Your task to perform on an android device: check google app version Image 0: 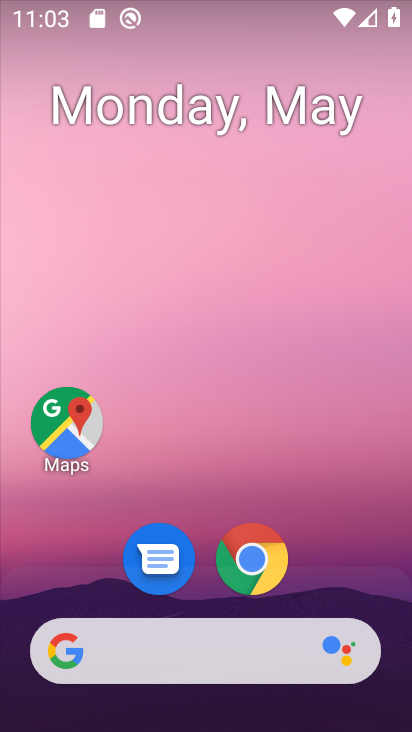
Step 0: drag from (384, 629) to (267, 16)
Your task to perform on an android device: check google app version Image 1: 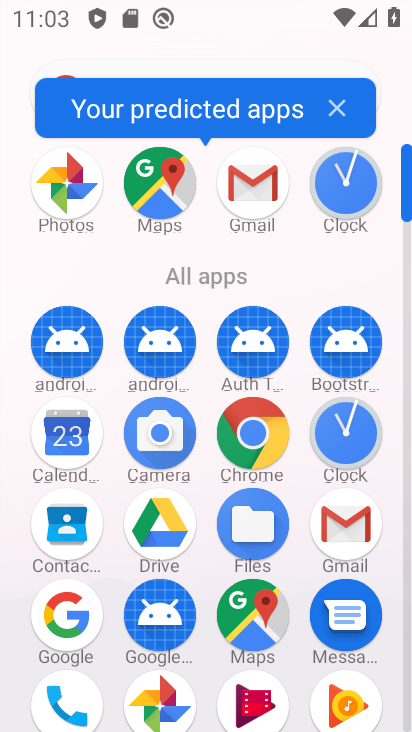
Step 1: click (84, 612)
Your task to perform on an android device: check google app version Image 2: 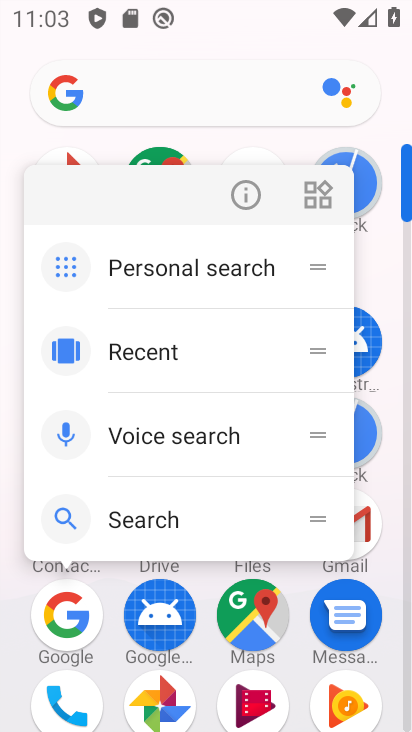
Step 2: click (245, 185)
Your task to perform on an android device: check google app version Image 3: 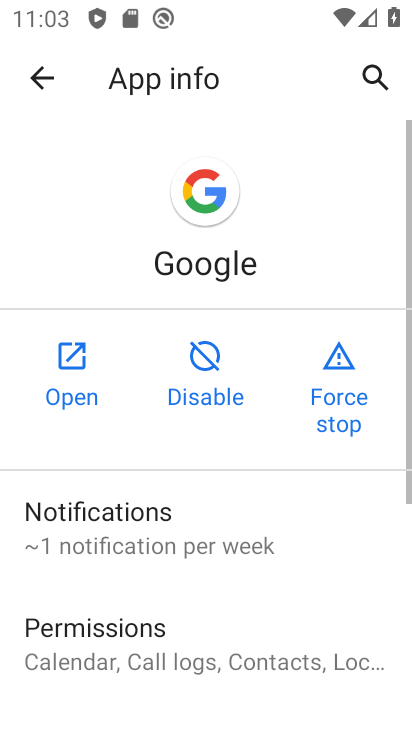
Step 3: drag from (280, 600) to (262, 17)
Your task to perform on an android device: check google app version Image 4: 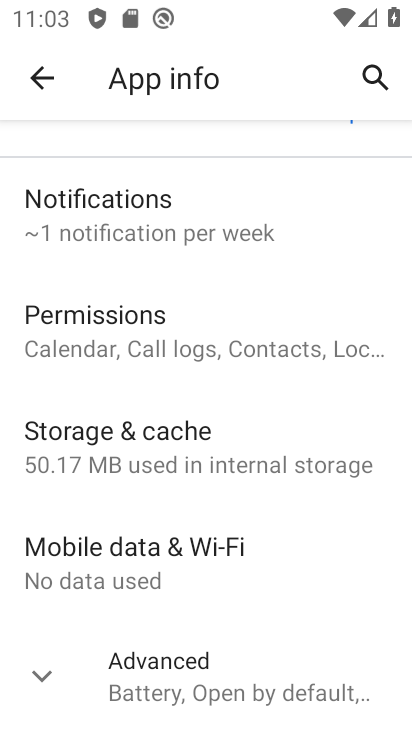
Step 4: click (174, 660)
Your task to perform on an android device: check google app version Image 5: 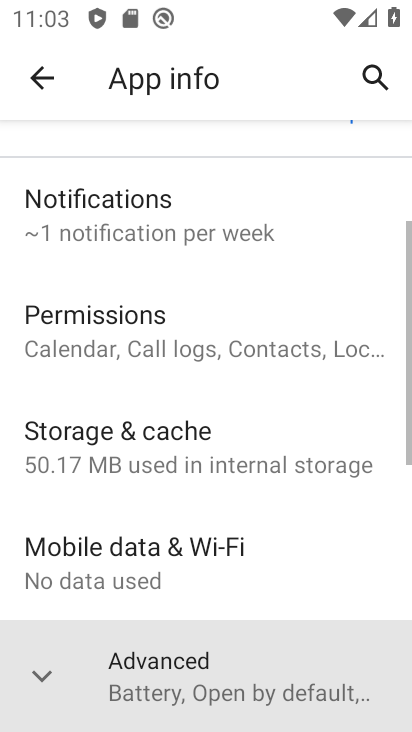
Step 5: task complete